Your task to perform on an android device: Open calendar and show me the fourth week of next month Image 0: 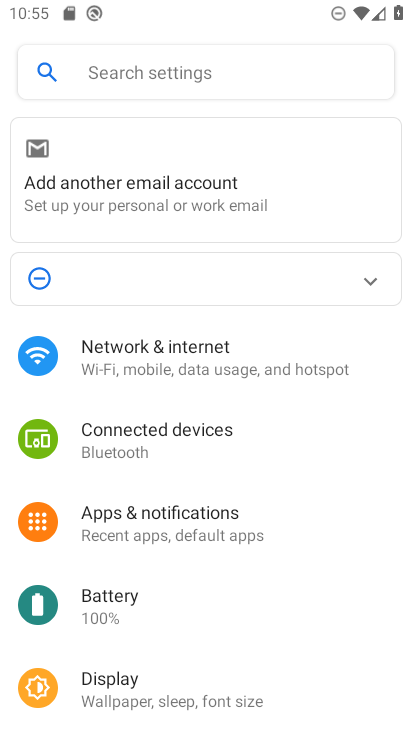
Step 0: press home button
Your task to perform on an android device: Open calendar and show me the fourth week of next month Image 1: 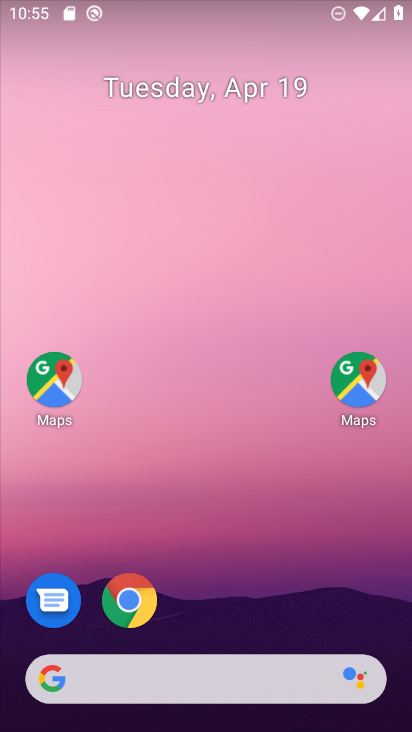
Step 1: drag from (221, 654) to (208, 19)
Your task to perform on an android device: Open calendar and show me the fourth week of next month Image 2: 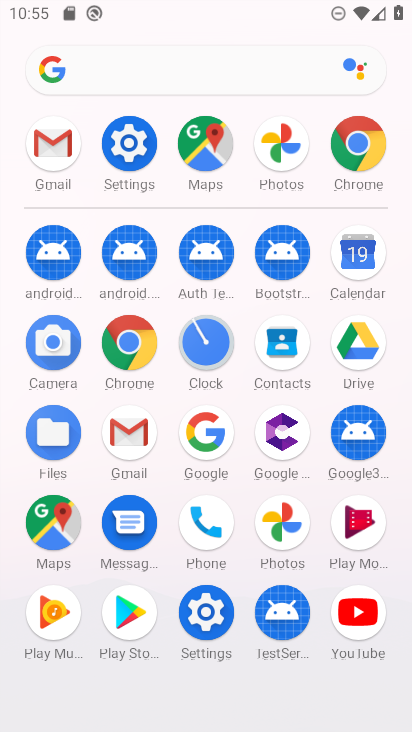
Step 2: click (365, 270)
Your task to perform on an android device: Open calendar and show me the fourth week of next month Image 3: 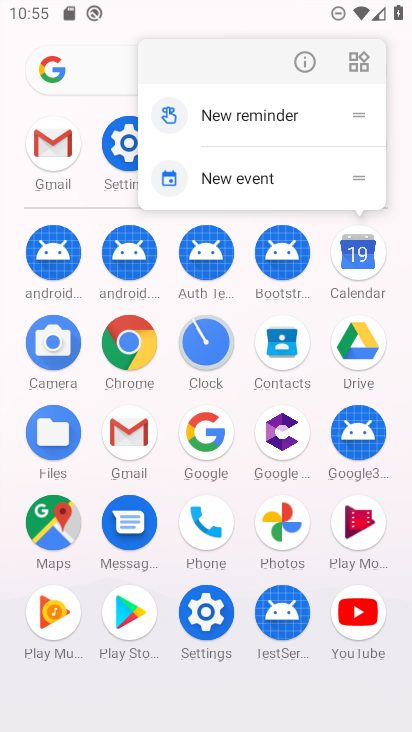
Step 3: click (365, 270)
Your task to perform on an android device: Open calendar and show me the fourth week of next month Image 4: 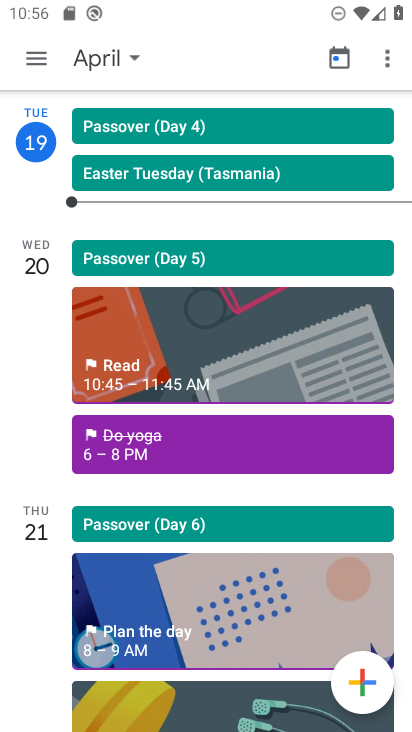
Step 4: click (136, 60)
Your task to perform on an android device: Open calendar and show me the fourth week of next month Image 5: 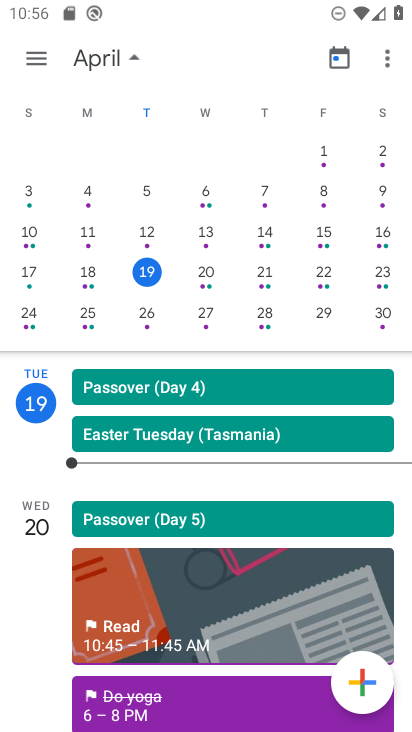
Step 5: drag from (368, 282) to (2, 253)
Your task to perform on an android device: Open calendar and show me the fourth week of next month Image 6: 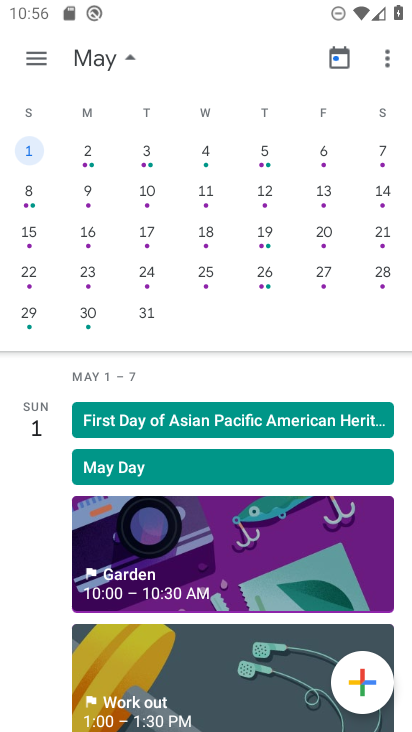
Step 6: click (206, 272)
Your task to perform on an android device: Open calendar and show me the fourth week of next month Image 7: 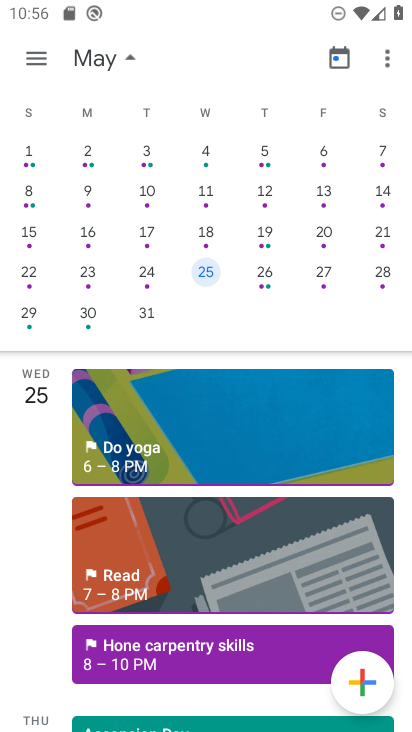
Step 7: task complete